Your task to perform on an android device: Open Chrome and go to settings Image 0: 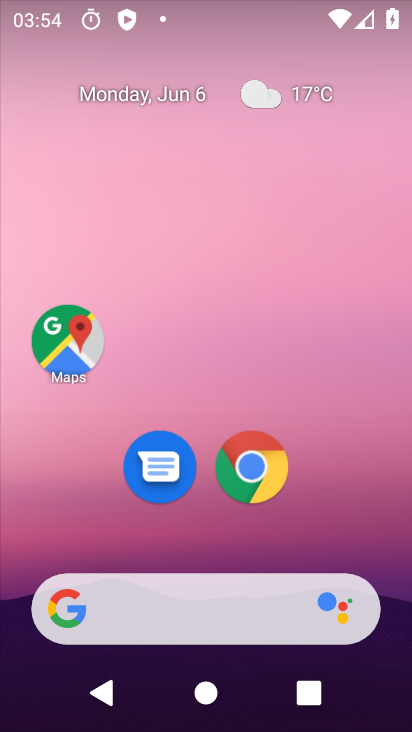
Step 0: press home button
Your task to perform on an android device: Open Chrome and go to settings Image 1: 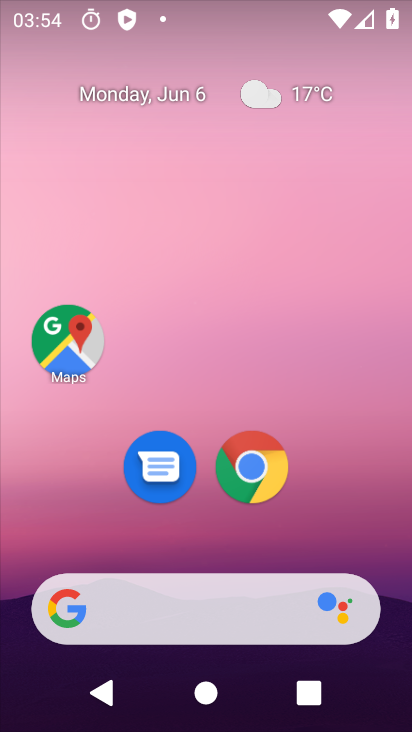
Step 1: click (250, 458)
Your task to perform on an android device: Open Chrome and go to settings Image 2: 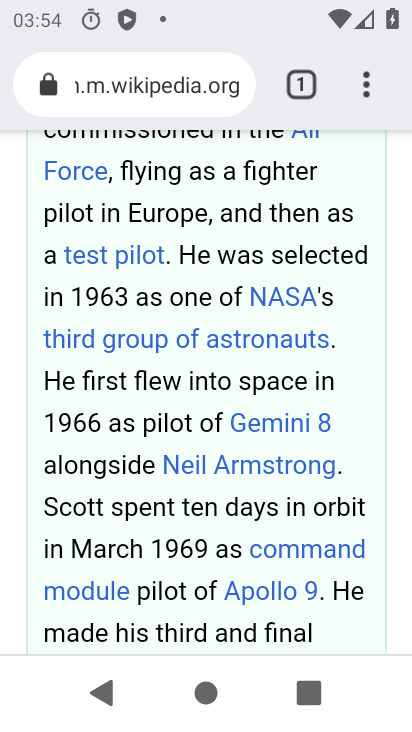
Step 2: click (365, 77)
Your task to perform on an android device: Open Chrome and go to settings Image 3: 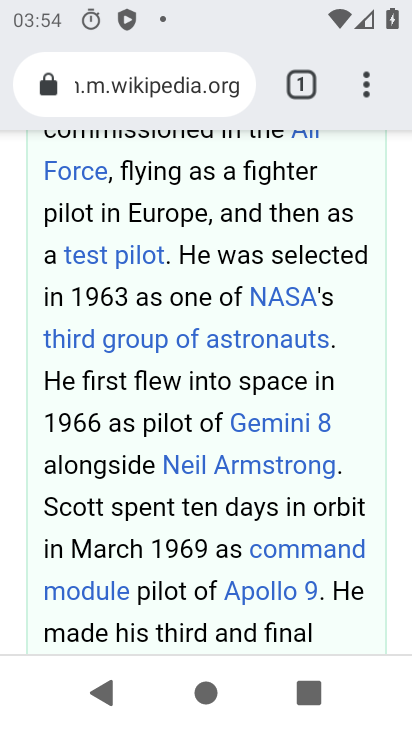
Step 3: click (362, 84)
Your task to perform on an android device: Open Chrome and go to settings Image 4: 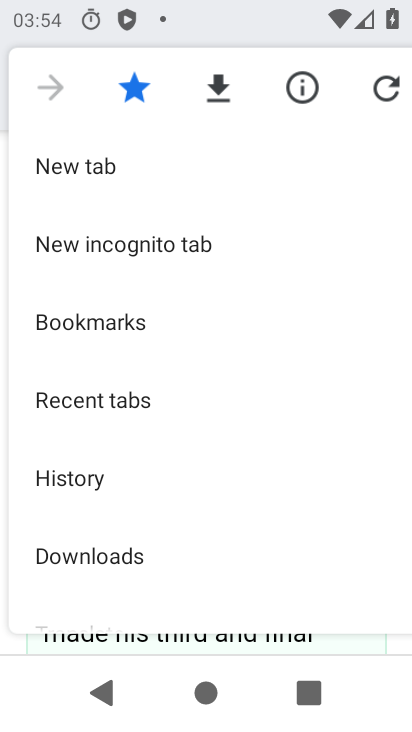
Step 4: drag from (191, 586) to (180, 182)
Your task to perform on an android device: Open Chrome and go to settings Image 5: 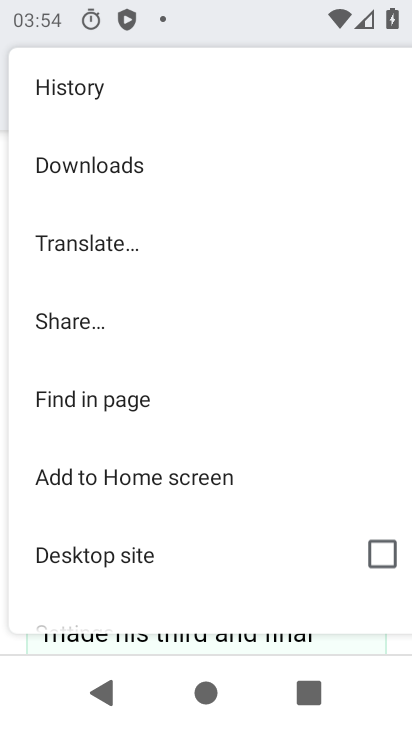
Step 5: drag from (184, 575) to (183, 157)
Your task to perform on an android device: Open Chrome and go to settings Image 6: 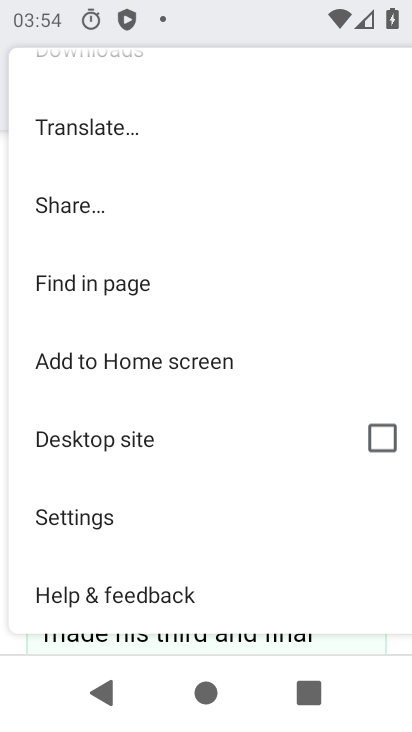
Step 6: click (131, 513)
Your task to perform on an android device: Open Chrome and go to settings Image 7: 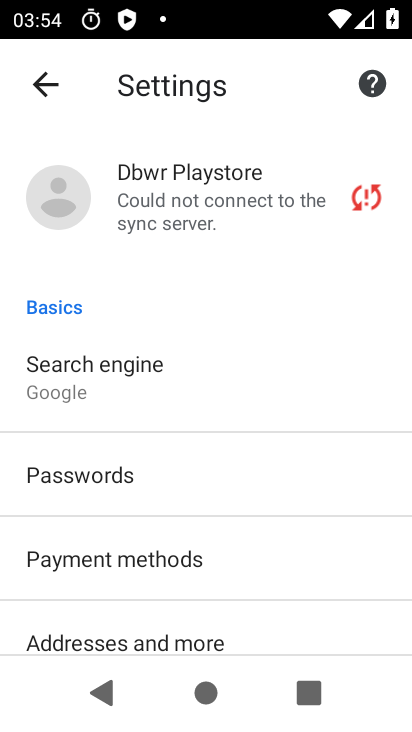
Step 7: task complete